Your task to perform on an android device: turn on notifications settings in the gmail app Image 0: 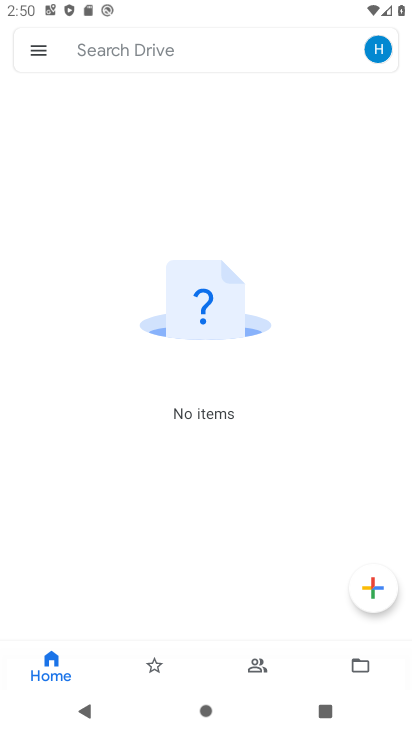
Step 0: press home button
Your task to perform on an android device: turn on notifications settings in the gmail app Image 1: 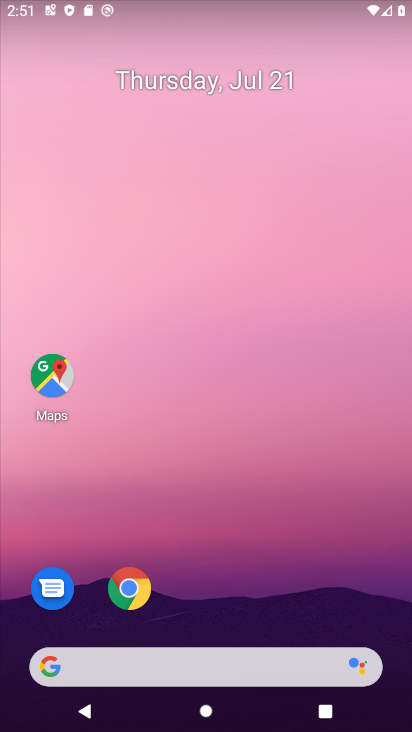
Step 1: drag from (217, 544) to (119, 54)
Your task to perform on an android device: turn on notifications settings in the gmail app Image 2: 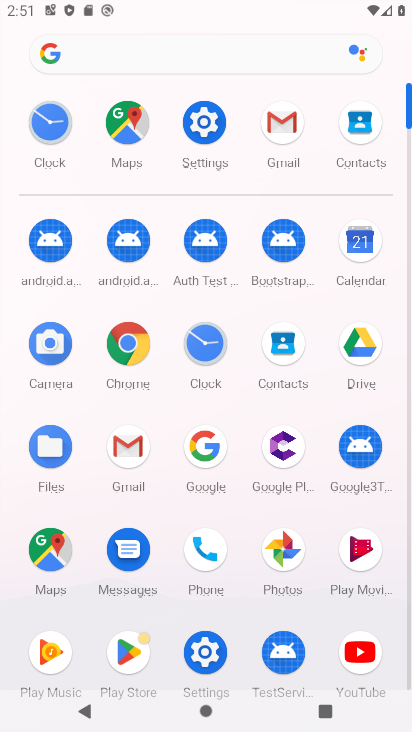
Step 2: click (129, 441)
Your task to perform on an android device: turn on notifications settings in the gmail app Image 3: 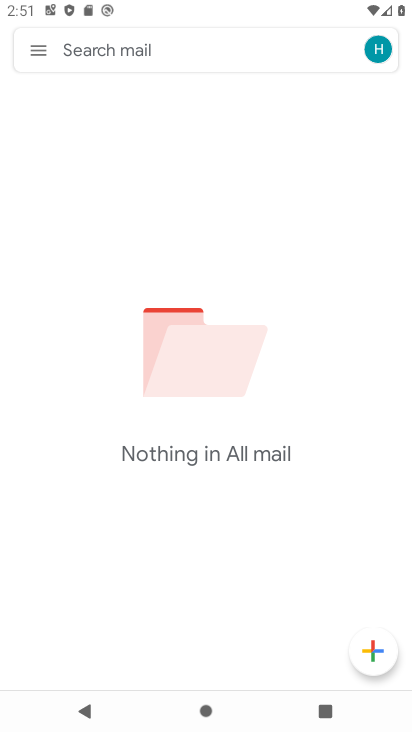
Step 3: click (33, 47)
Your task to perform on an android device: turn on notifications settings in the gmail app Image 4: 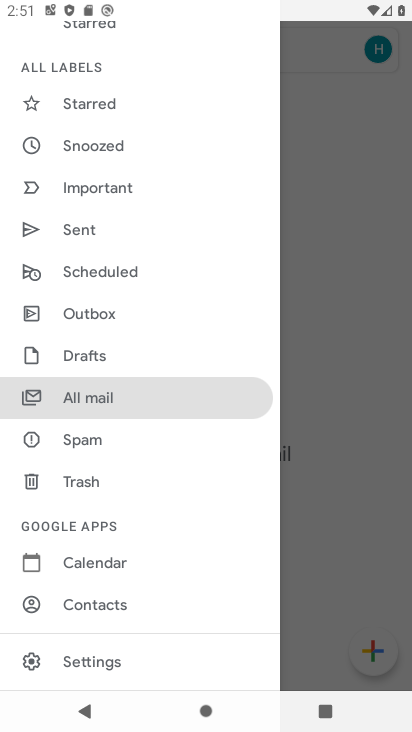
Step 4: click (89, 662)
Your task to perform on an android device: turn on notifications settings in the gmail app Image 5: 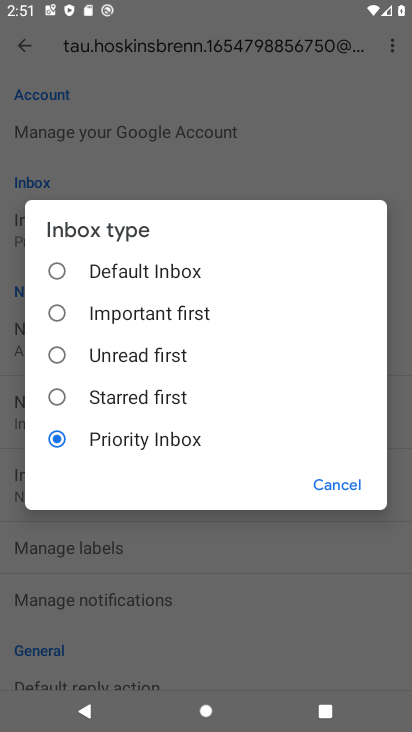
Step 5: click (324, 481)
Your task to perform on an android device: turn on notifications settings in the gmail app Image 6: 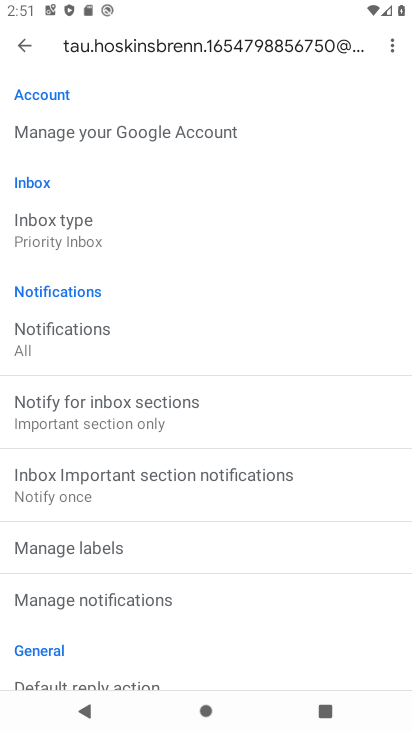
Step 6: click (24, 41)
Your task to perform on an android device: turn on notifications settings in the gmail app Image 7: 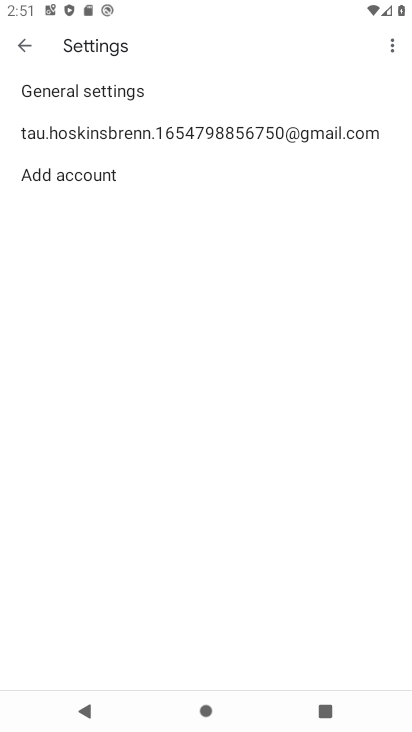
Step 7: click (61, 85)
Your task to perform on an android device: turn on notifications settings in the gmail app Image 8: 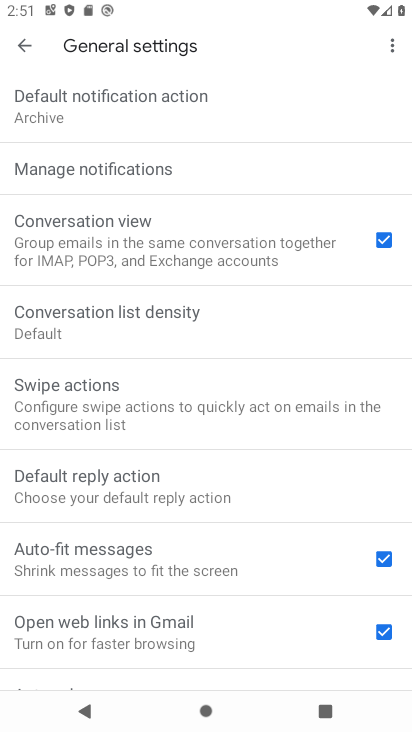
Step 8: click (85, 164)
Your task to perform on an android device: turn on notifications settings in the gmail app Image 9: 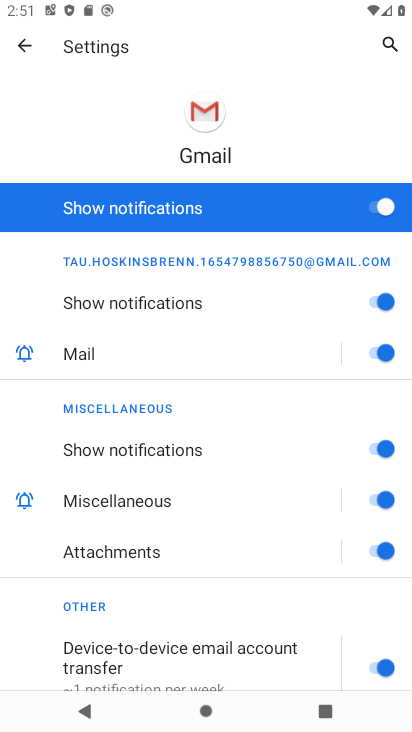
Step 9: task complete